Your task to perform on an android device: Go to accessibility settings Image 0: 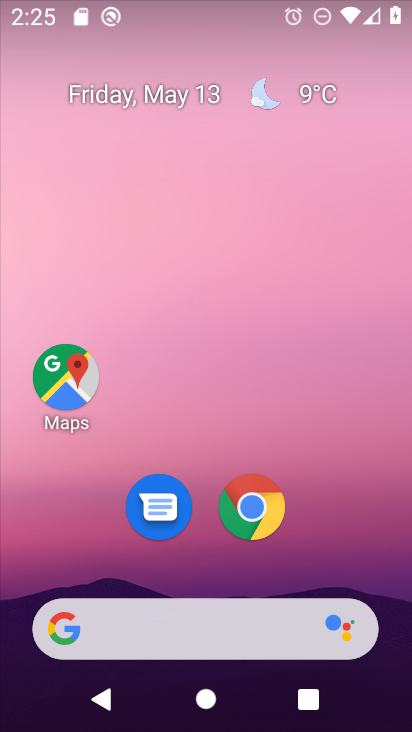
Step 0: drag from (322, 423) to (307, 71)
Your task to perform on an android device: Go to accessibility settings Image 1: 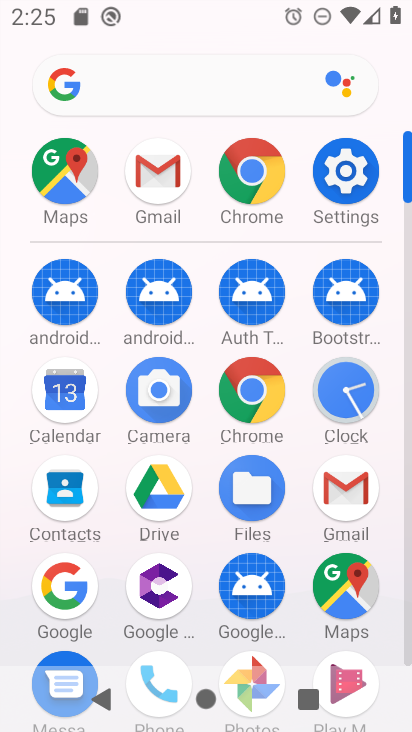
Step 1: click (352, 172)
Your task to perform on an android device: Go to accessibility settings Image 2: 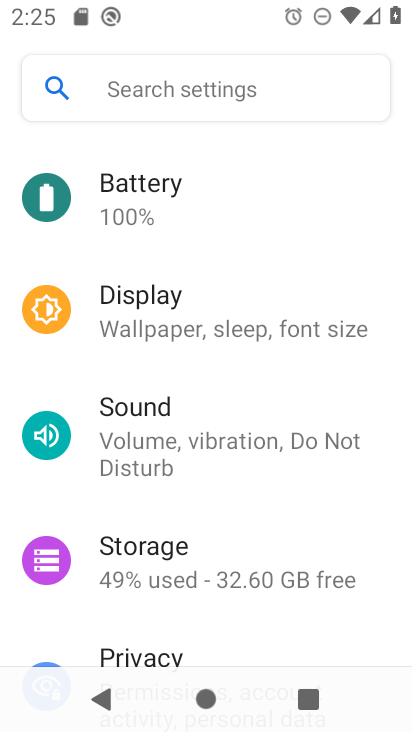
Step 2: drag from (213, 505) to (170, 170)
Your task to perform on an android device: Go to accessibility settings Image 3: 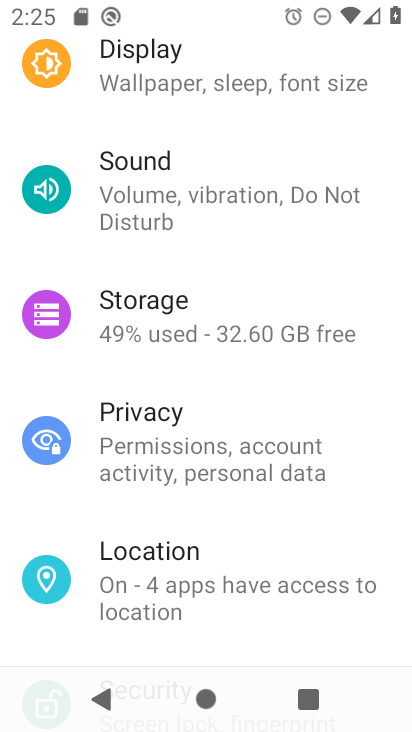
Step 3: drag from (199, 164) to (203, 528)
Your task to perform on an android device: Go to accessibility settings Image 4: 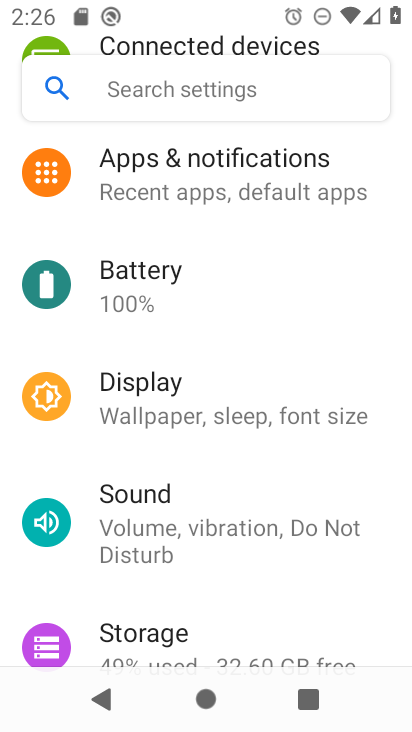
Step 4: drag from (220, 195) to (213, 579)
Your task to perform on an android device: Go to accessibility settings Image 5: 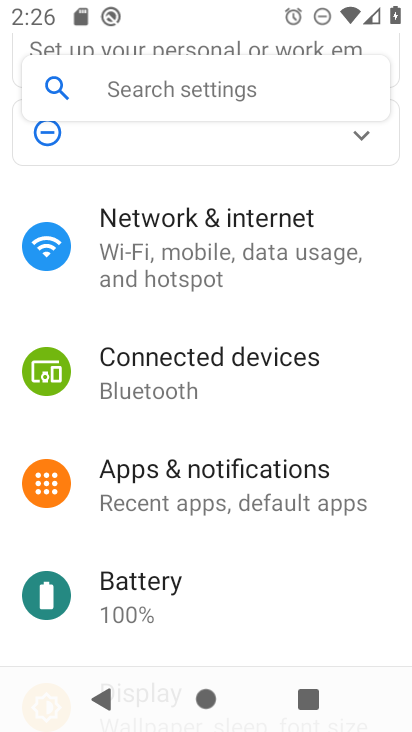
Step 5: drag from (193, 476) to (150, 217)
Your task to perform on an android device: Go to accessibility settings Image 6: 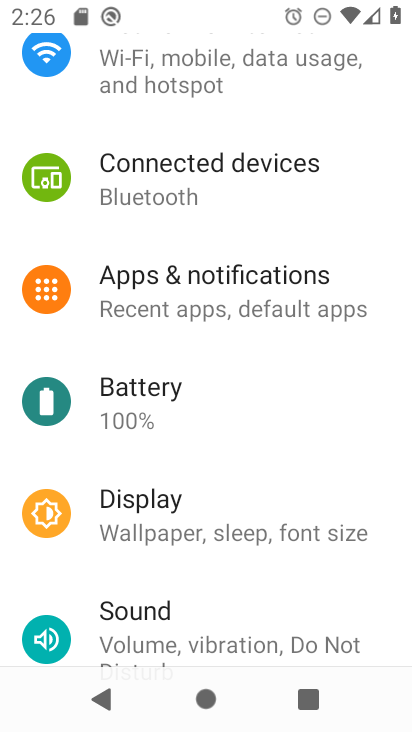
Step 6: drag from (217, 469) to (198, 190)
Your task to perform on an android device: Go to accessibility settings Image 7: 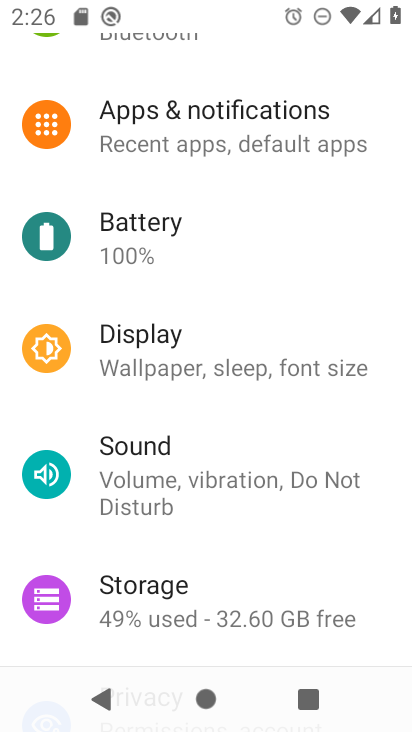
Step 7: drag from (252, 546) to (222, 198)
Your task to perform on an android device: Go to accessibility settings Image 8: 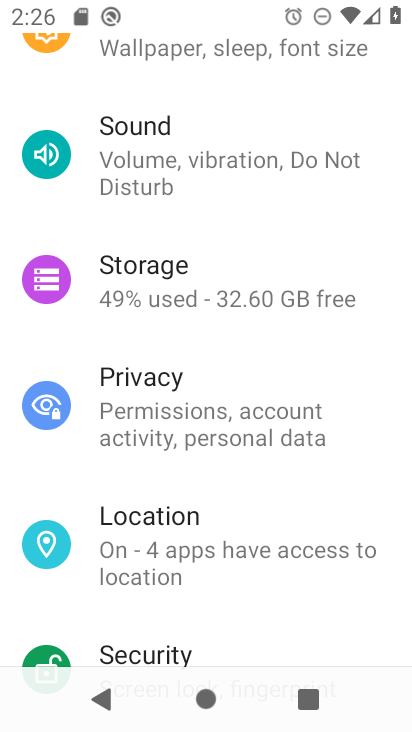
Step 8: drag from (246, 504) to (220, 174)
Your task to perform on an android device: Go to accessibility settings Image 9: 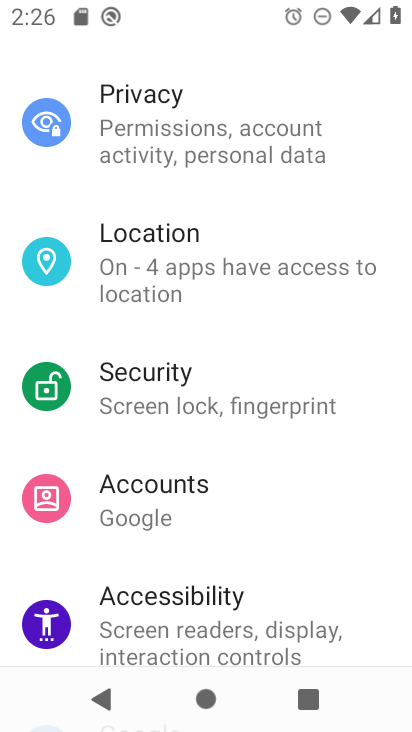
Step 9: drag from (212, 577) to (221, 274)
Your task to perform on an android device: Go to accessibility settings Image 10: 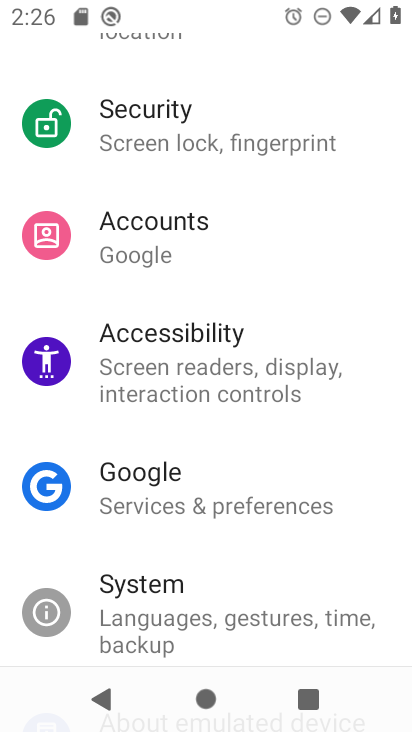
Step 10: click (242, 392)
Your task to perform on an android device: Go to accessibility settings Image 11: 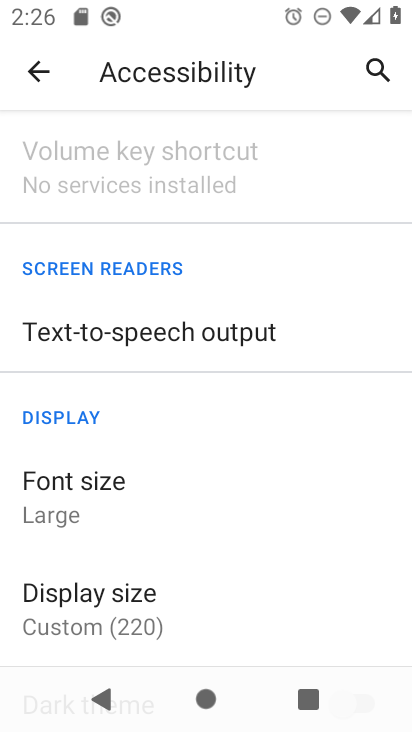
Step 11: task complete